Your task to perform on an android device: Open the map Image 0: 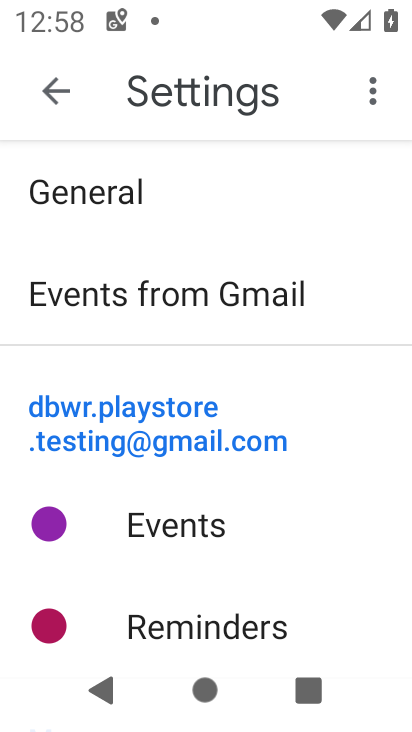
Step 0: press back button
Your task to perform on an android device: Open the map Image 1: 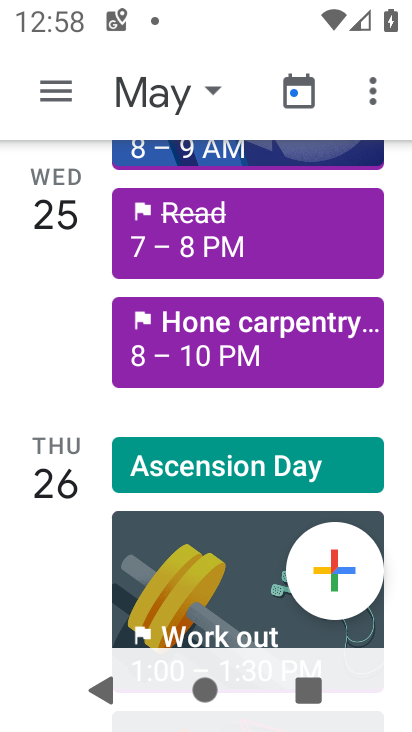
Step 1: press back button
Your task to perform on an android device: Open the map Image 2: 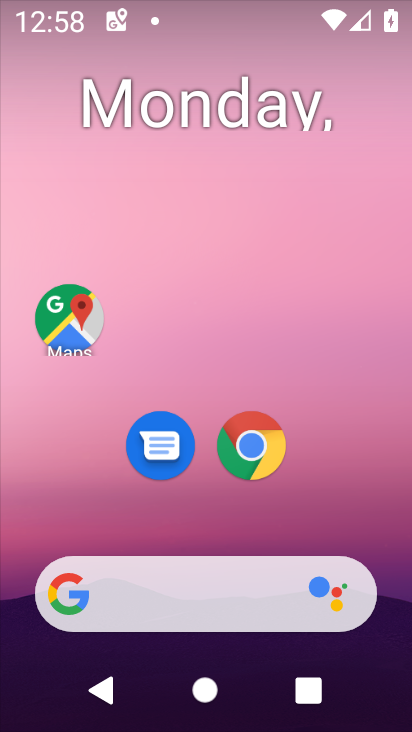
Step 2: click (68, 323)
Your task to perform on an android device: Open the map Image 3: 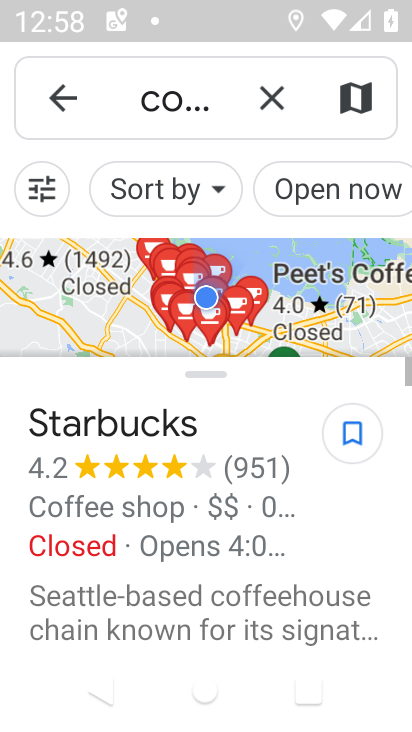
Step 3: task complete